Your task to perform on an android device: toggle show notifications on the lock screen Image 0: 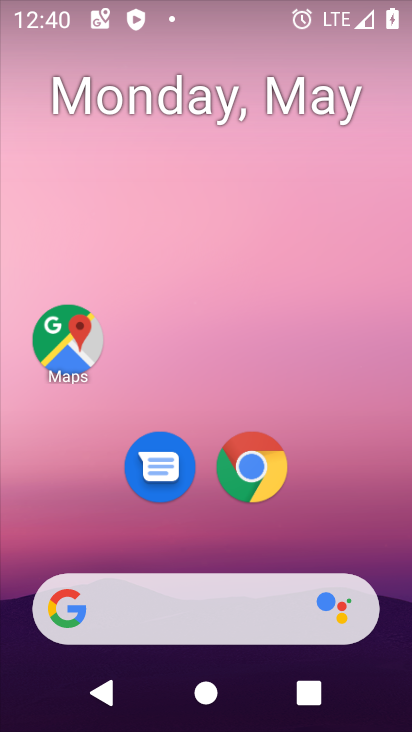
Step 0: drag from (387, 568) to (384, 8)
Your task to perform on an android device: toggle show notifications on the lock screen Image 1: 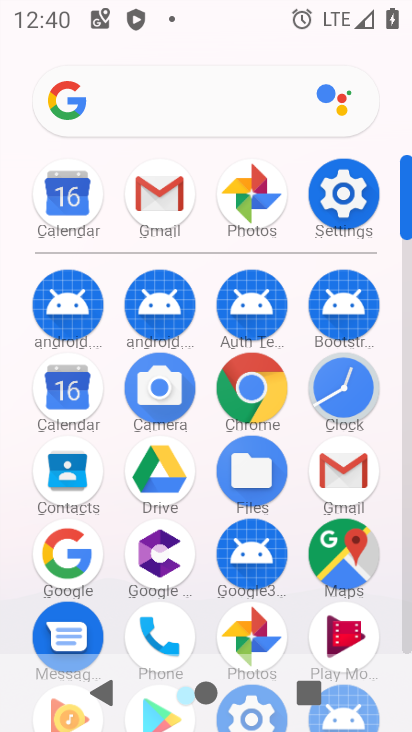
Step 1: click (344, 191)
Your task to perform on an android device: toggle show notifications on the lock screen Image 2: 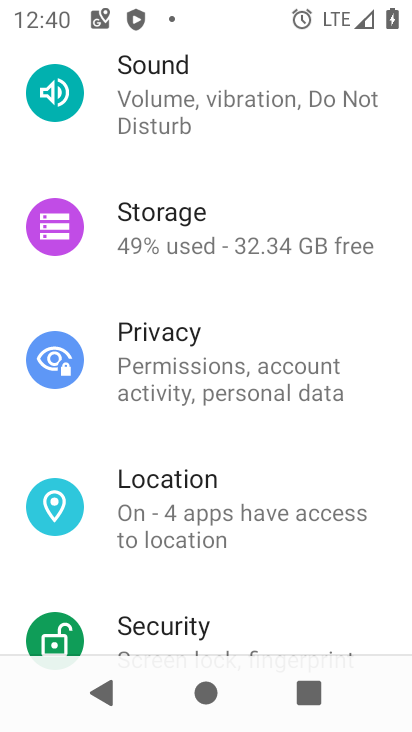
Step 2: drag from (243, 218) to (252, 552)
Your task to perform on an android device: toggle show notifications on the lock screen Image 3: 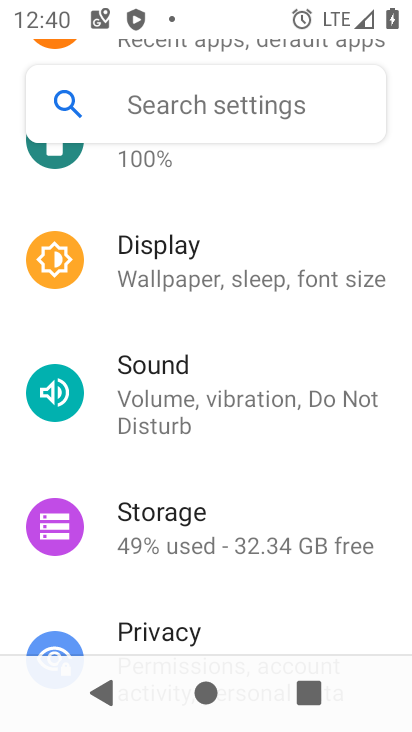
Step 3: drag from (257, 276) to (242, 591)
Your task to perform on an android device: toggle show notifications on the lock screen Image 4: 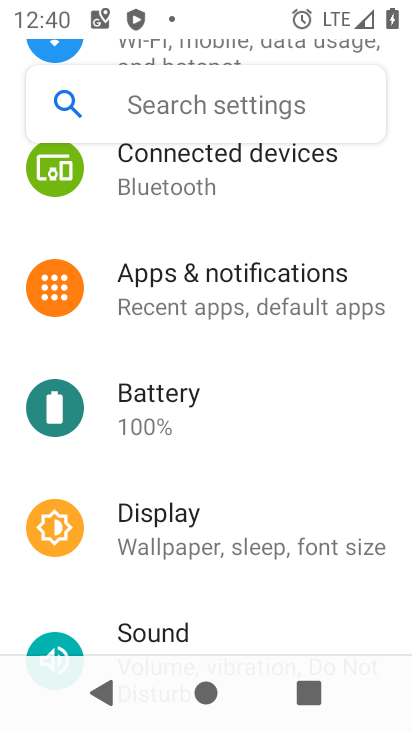
Step 4: click (197, 300)
Your task to perform on an android device: toggle show notifications on the lock screen Image 5: 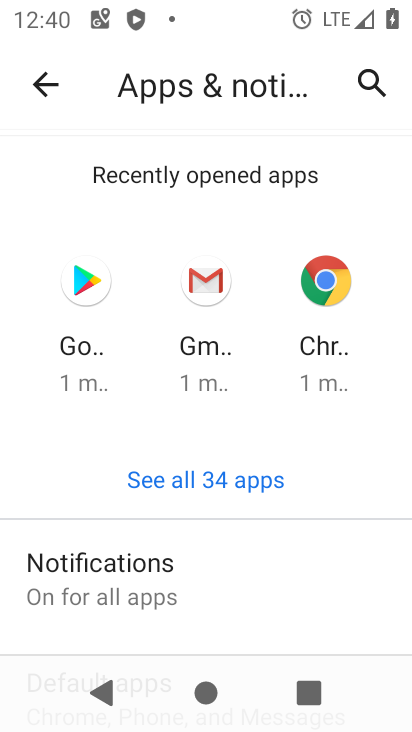
Step 5: click (51, 582)
Your task to perform on an android device: toggle show notifications on the lock screen Image 6: 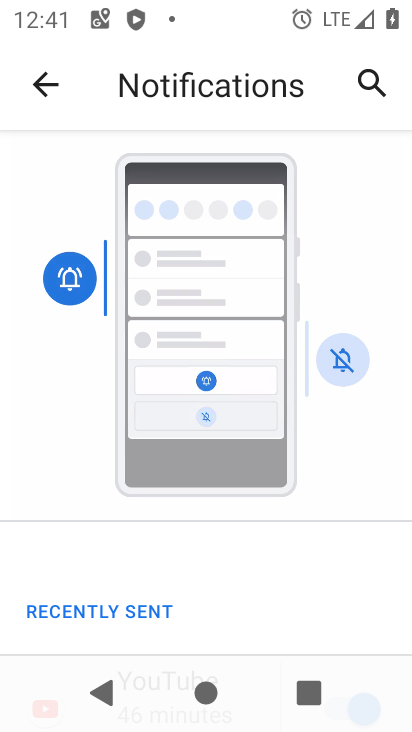
Step 6: drag from (179, 592) to (171, 124)
Your task to perform on an android device: toggle show notifications on the lock screen Image 7: 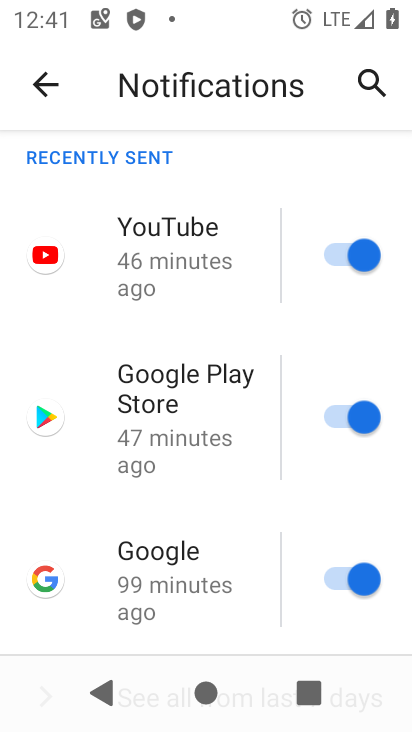
Step 7: drag from (163, 543) to (157, 150)
Your task to perform on an android device: toggle show notifications on the lock screen Image 8: 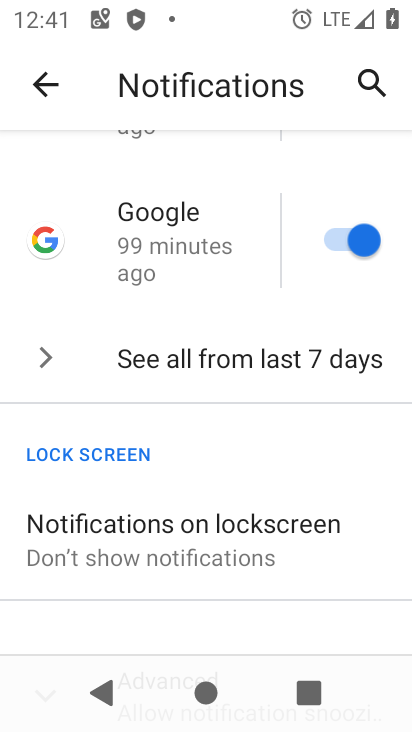
Step 8: click (145, 548)
Your task to perform on an android device: toggle show notifications on the lock screen Image 9: 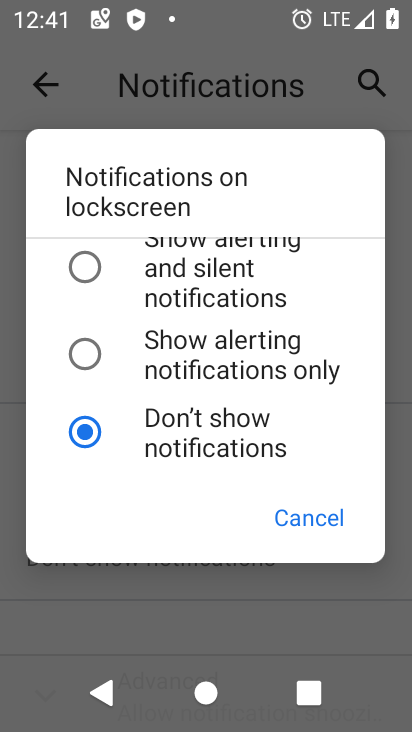
Step 9: click (75, 258)
Your task to perform on an android device: toggle show notifications on the lock screen Image 10: 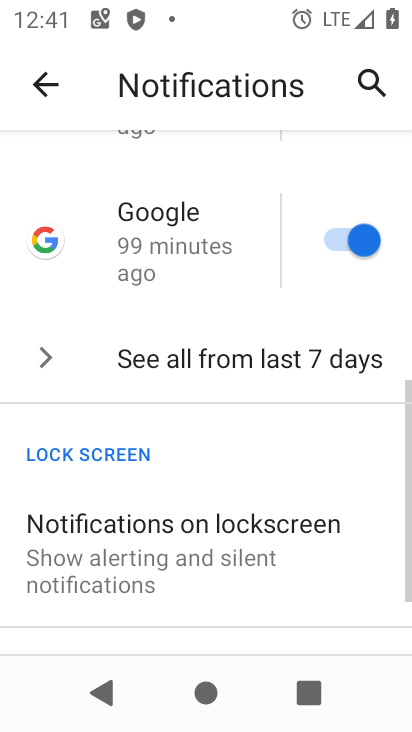
Step 10: task complete